Your task to perform on an android device: open app "DoorDash - Food Delivery" Image 0: 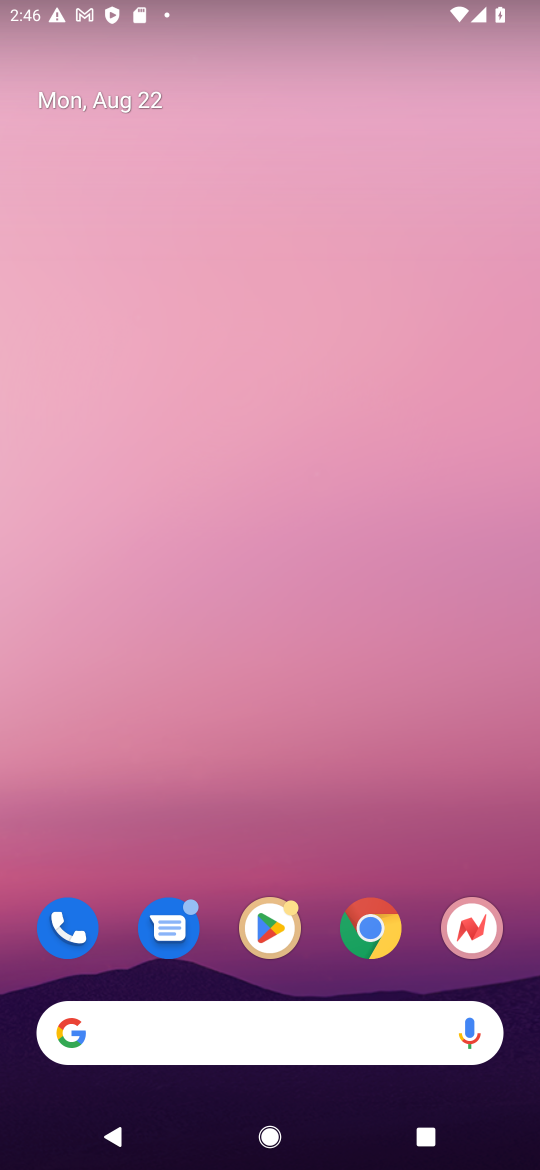
Step 0: click (264, 925)
Your task to perform on an android device: open app "DoorDash - Food Delivery" Image 1: 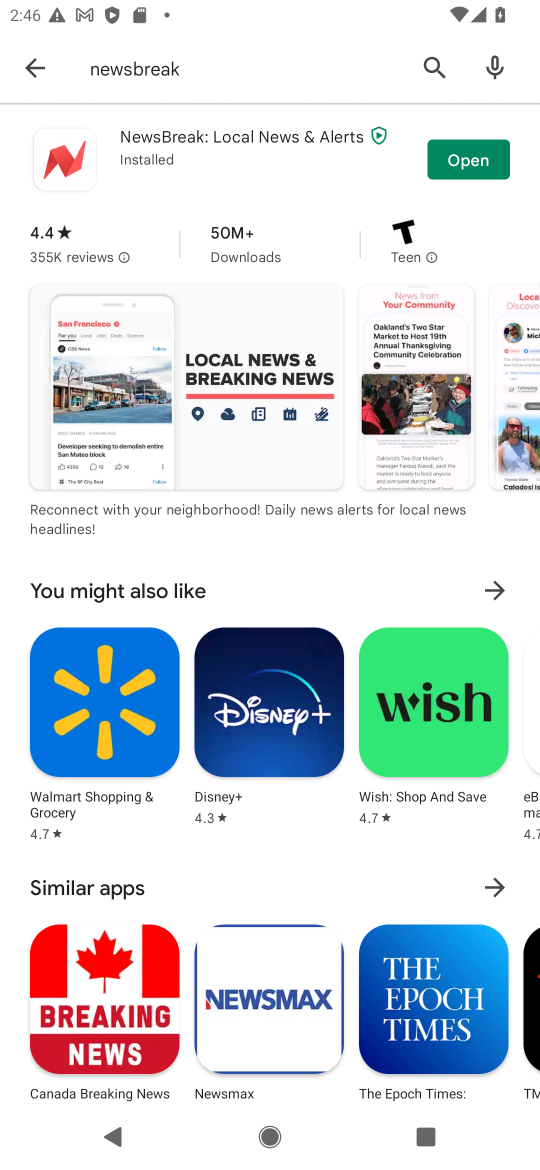
Step 1: click (214, 62)
Your task to perform on an android device: open app "DoorDash - Food Delivery" Image 2: 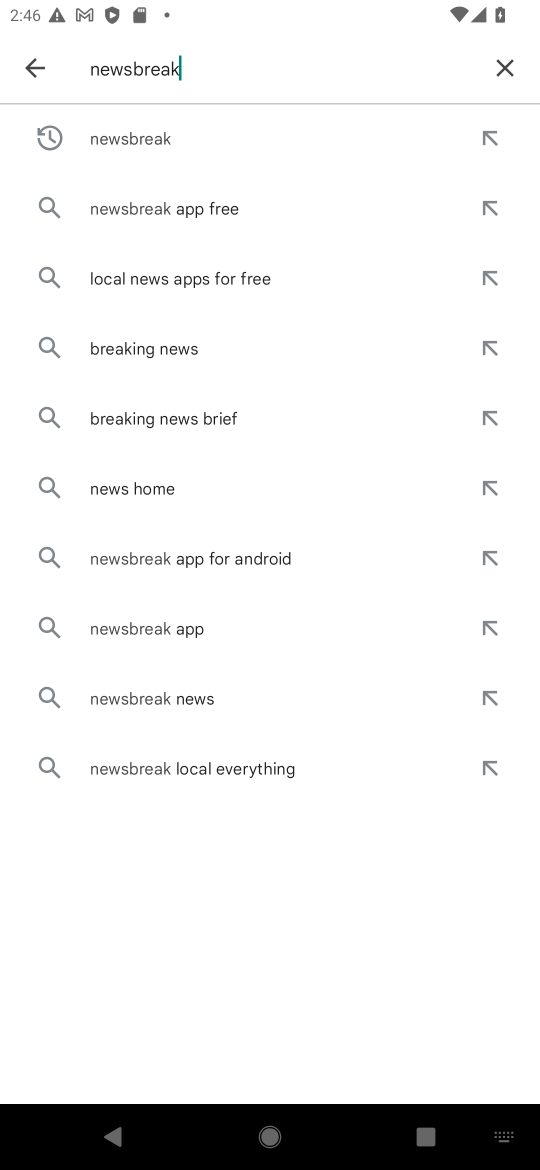
Step 2: click (505, 66)
Your task to perform on an android device: open app "DoorDash - Food Delivery" Image 3: 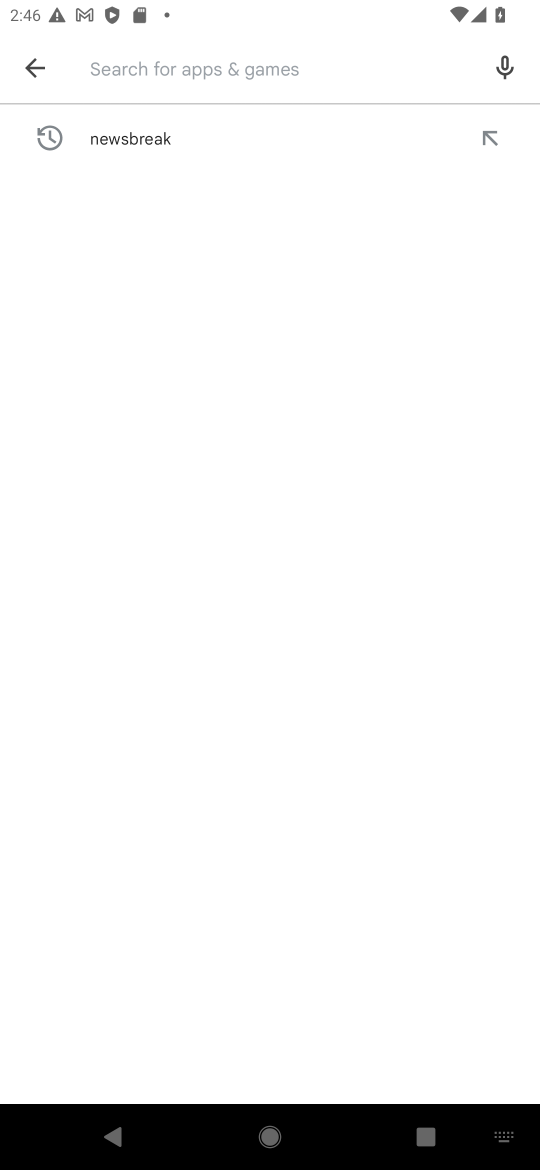
Step 3: type "DoorDash - Food delivery"
Your task to perform on an android device: open app "DoorDash - Food Delivery" Image 4: 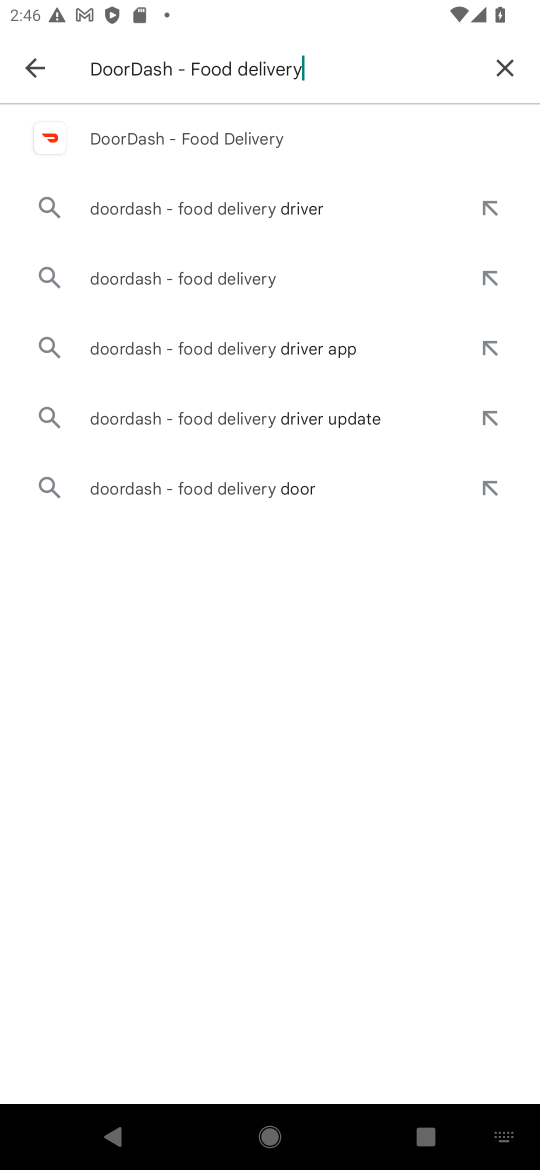
Step 4: click (192, 148)
Your task to perform on an android device: open app "DoorDash - Food Delivery" Image 5: 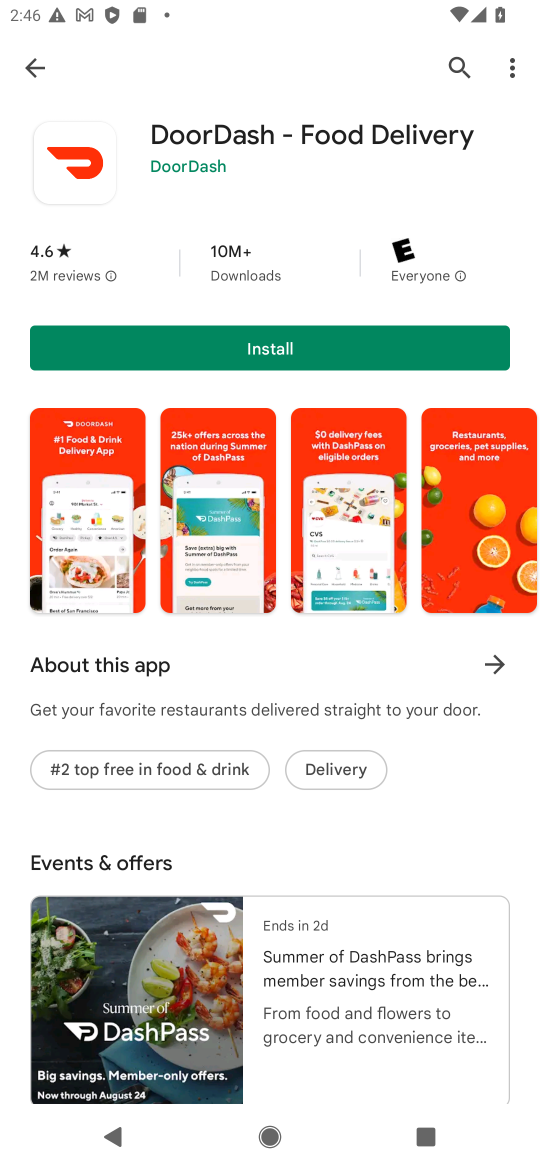
Step 5: task complete